Your task to perform on an android device: search for starred emails in the gmail app Image 0: 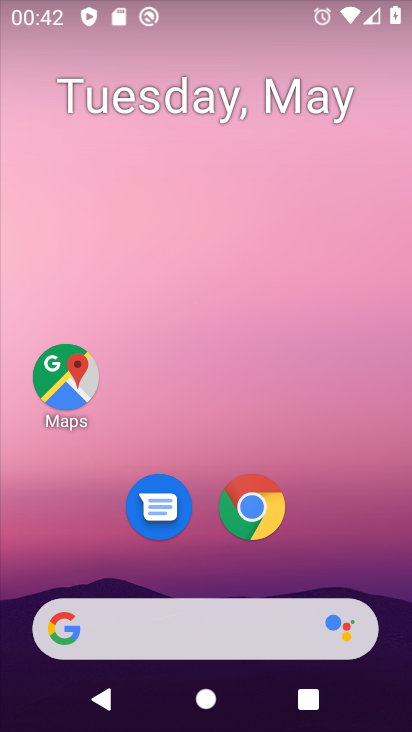
Step 0: drag from (208, 592) to (228, 257)
Your task to perform on an android device: search for starred emails in the gmail app Image 1: 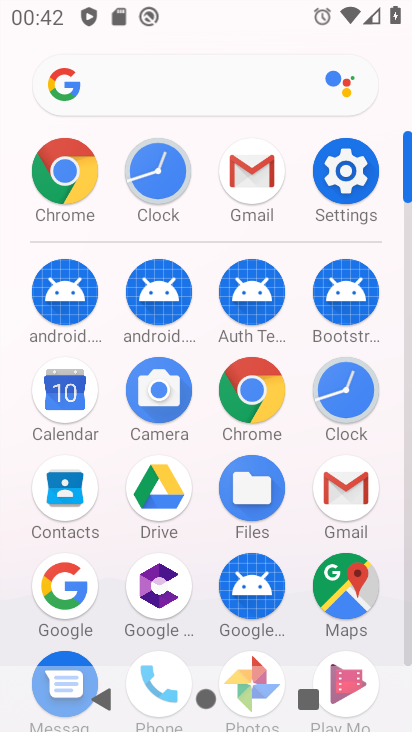
Step 1: click (240, 189)
Your task to perform on an android device: search for starred emails in the gmail app Image 2: 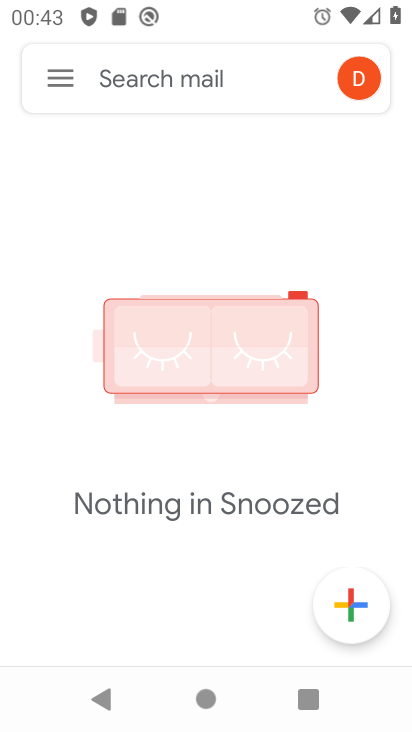
Step 2: click (66, 83)
Your task to perform on an android device: search for starred emails in the gmail app Image 3: 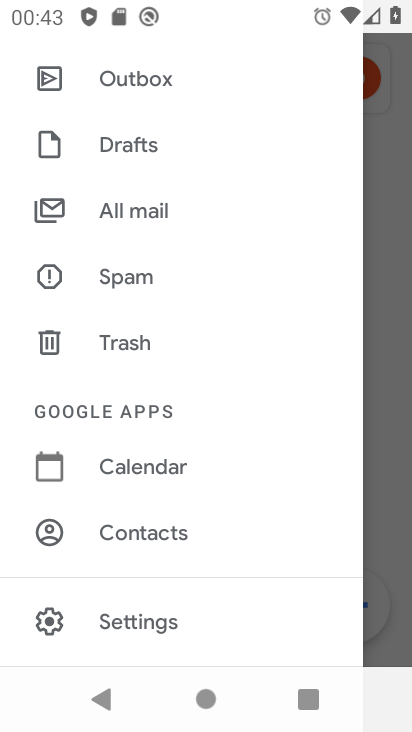
Step 3: click (140, 572)
Your task to perform on an android device: search for starred emails in the gmail app Image 4: 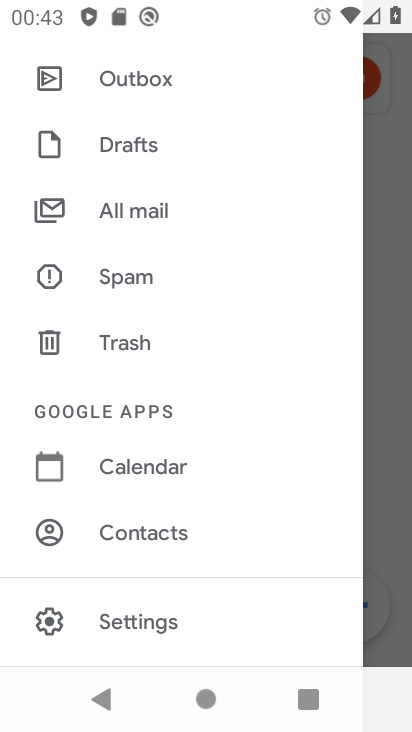
Step 4: drag from (173, 189) to (179, 474)
Your task to perform on an android device: search for starred emails in the gmail app Image 5: 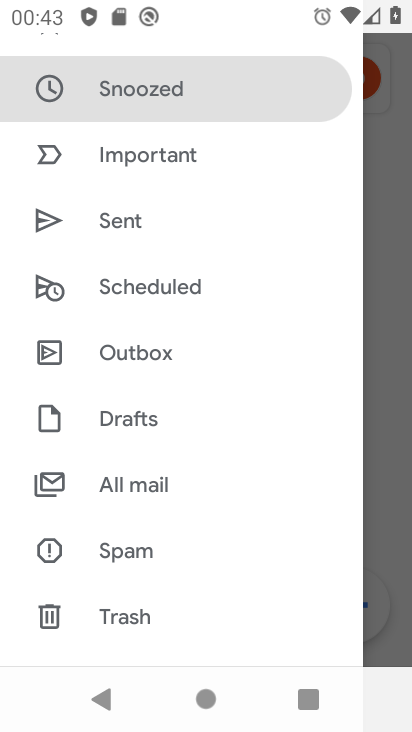
Step 5: drag from (127, 160) to (162, 502)
Your task to perform on an android device: search for starred emails in the gmail app Image 6: 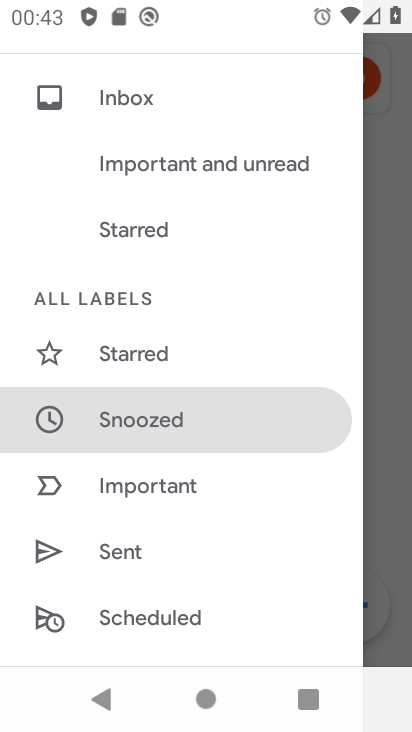
Step 6: click (118, 251)
Your task to perform on an android device: search for starred emails in the gmail app Image 7: 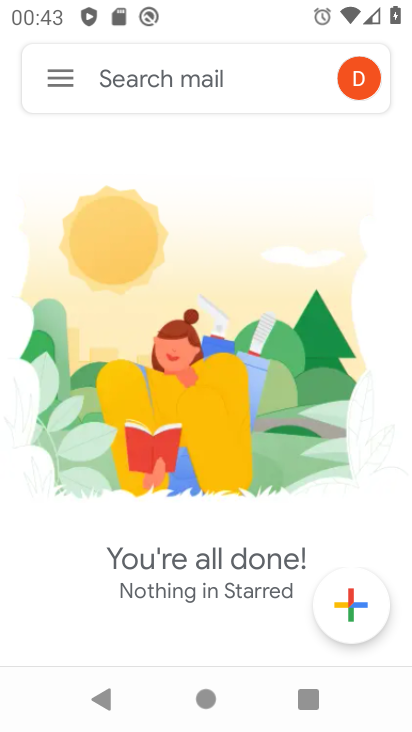
Step 7: task complete